Your task to perform on an android device: Open Youtube and go to "Your channel" Image 0: 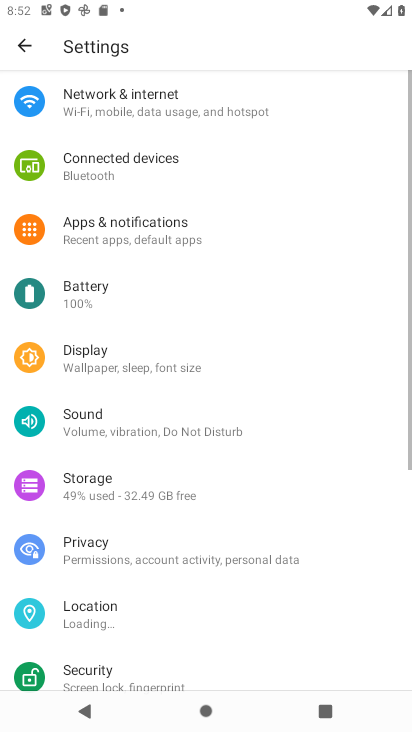
Step 0: press home button
Your task to perform on an android device: Open Youtube and go to "Your channel" Image 1: 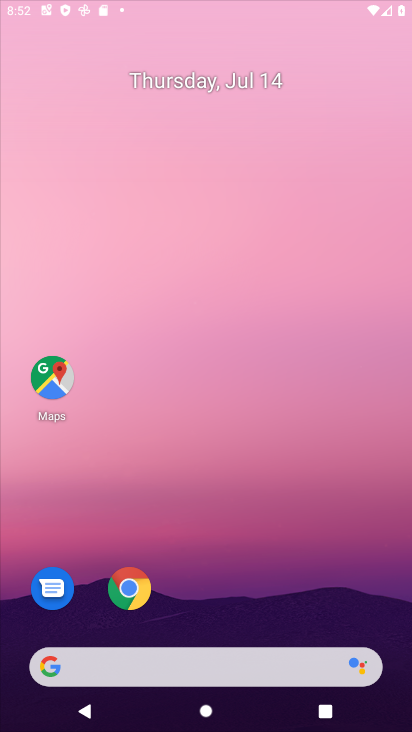
Step 1: drag from (230, 615) to (248, 114)
Your task to perform on an android device: Open Youtube and go to "Your channel" Image 2: 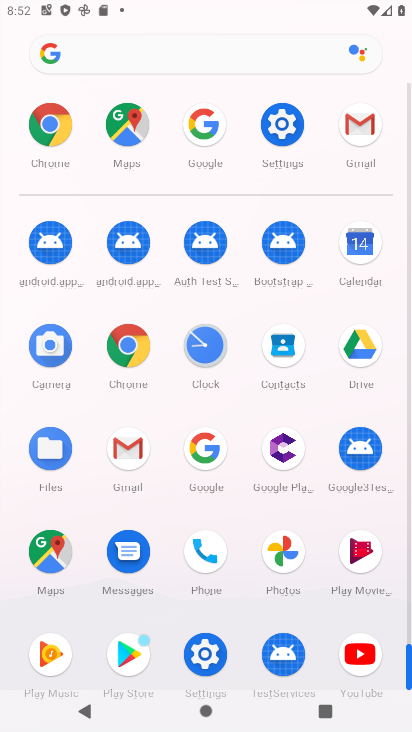
Step 2: click (356, 654)
Your task to perform on an android device: Open Youtube and go to "Your channel" Image 3: 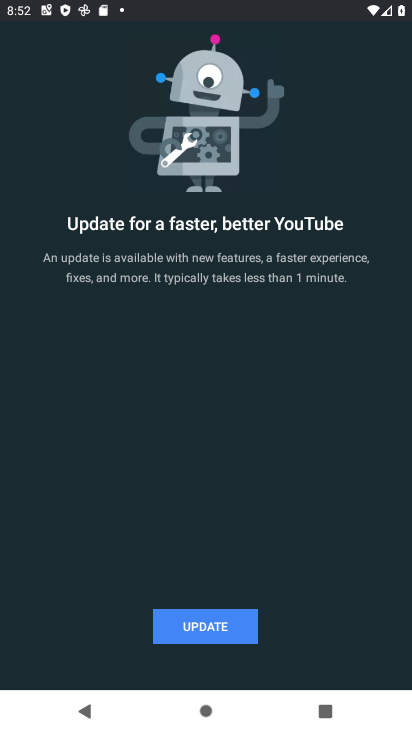
Step 3: click (209, 618)
Your task to perform on an android device: Open Youtube and go to "Your channel" Image 4: 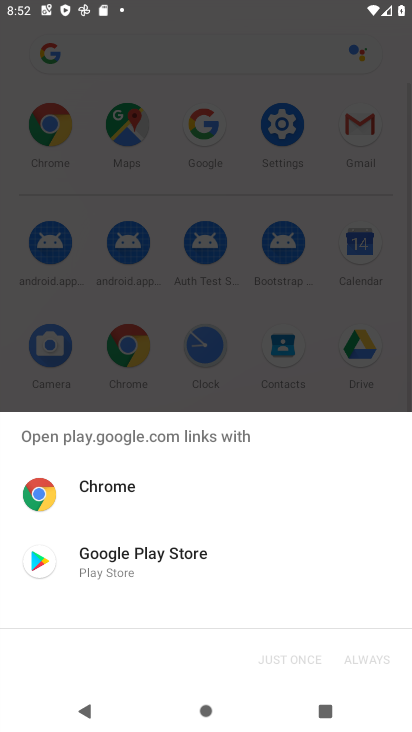
Step 4: click (132, 573)
Your task to perform on an android device: Open Youtube and go to "Your channel" Image 5: 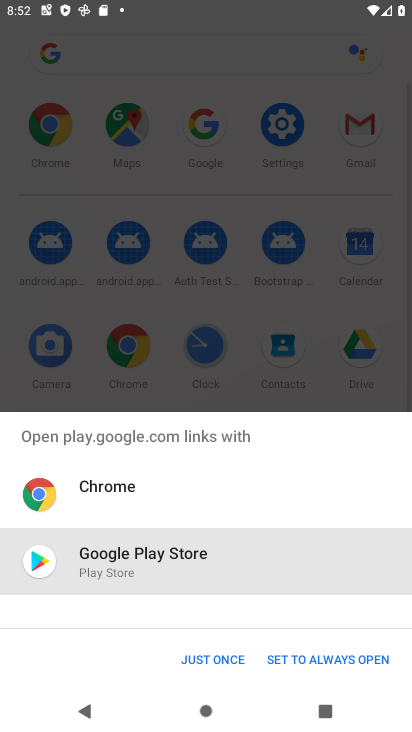
Step 5: click (213, 657)
Your task to perform on an android device: Open Youtube and go to "Your channel" Image 6: 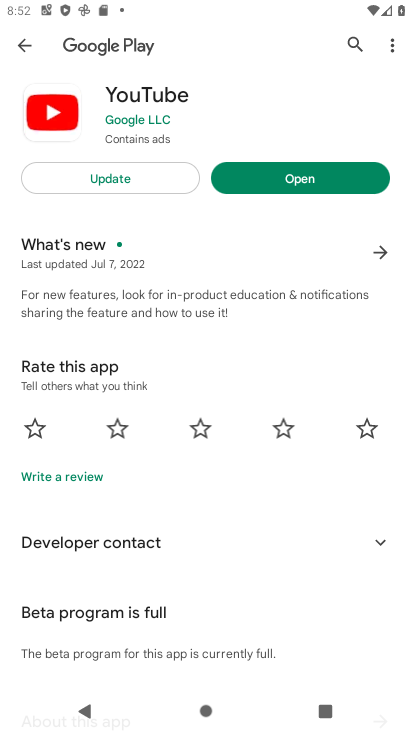
Step 6: click (125, 182)
Your task to perform on an android device: Open Youtube and go to "Your channel" Image 7: 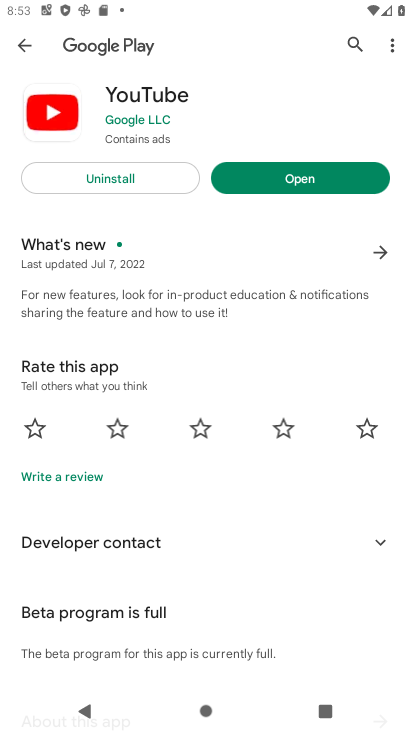
Step 7: click (274, 176)
Your task to perform on an android device: Open Youtube and go to "Your channel" Image 8: 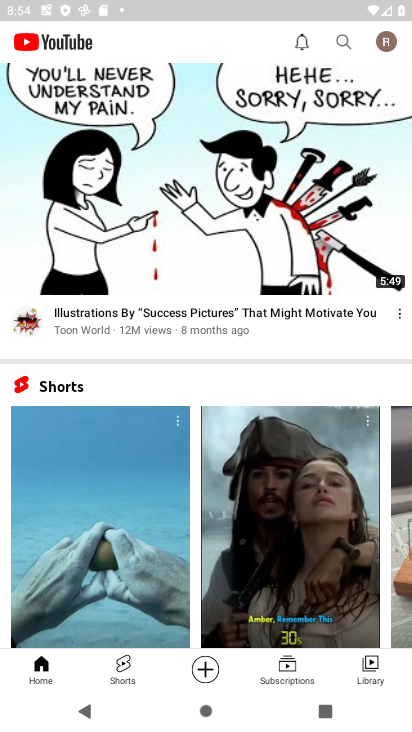
Step 8: click (387, 44)
Your task to perform on an android device: Open Youtube and go to "Your channel" Image 9: 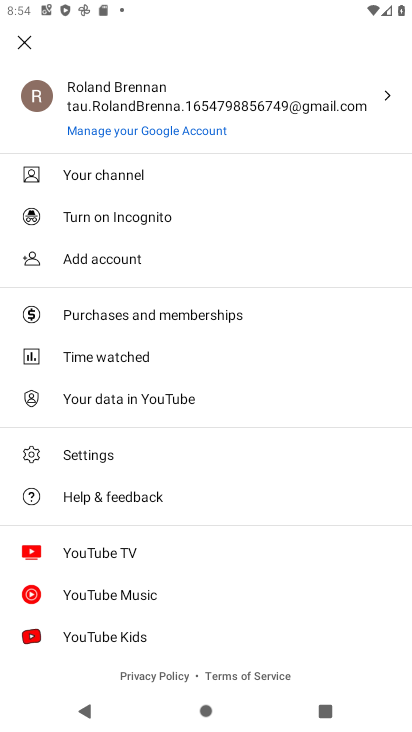
Step 9: click (123, 176)
Your task to perform on an android device: Open Youtube and go to "Your channel" Image 10: 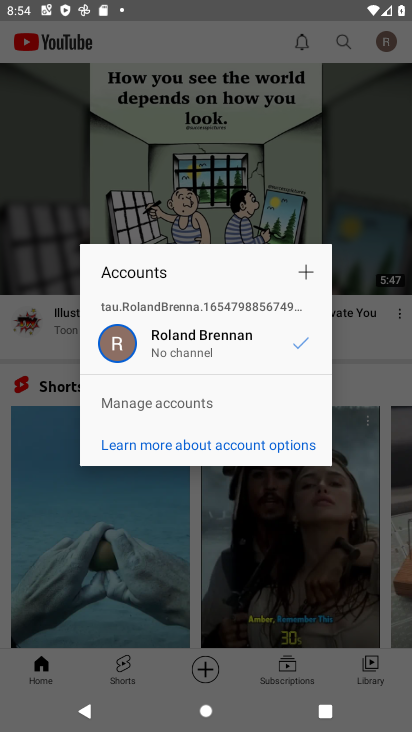
Step 10: task complete